Your task to perform on an android device: delete browsing data in the chrome app Image 0: 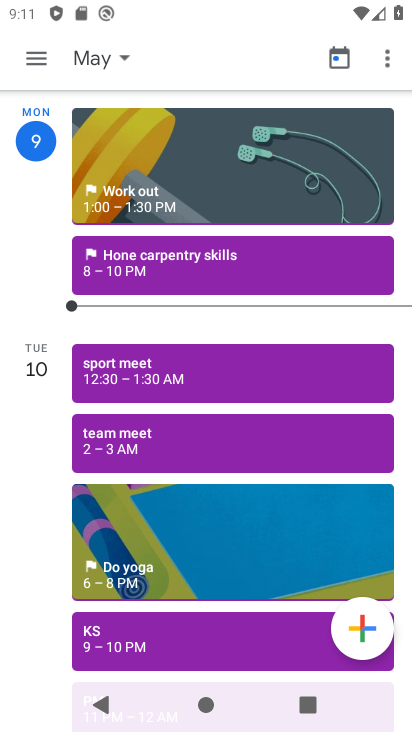
Step 0: press home button
Your task to perform on an android device: delete browsing data in the chrome app Image 1: 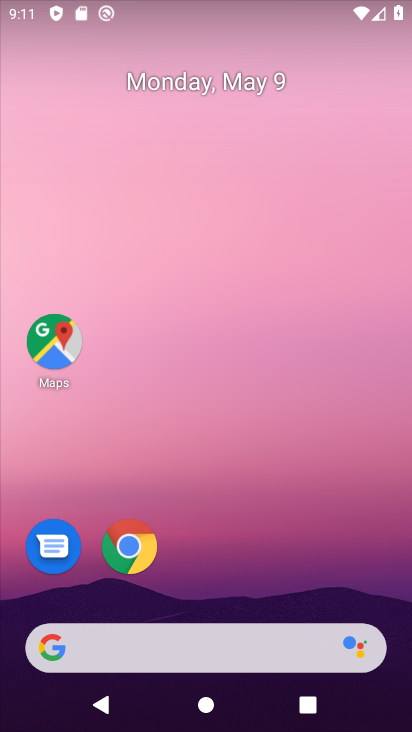
Step 1: click (142, 542)
Your task to perform on an android device: delete browsing data in the chrome app Image 2: 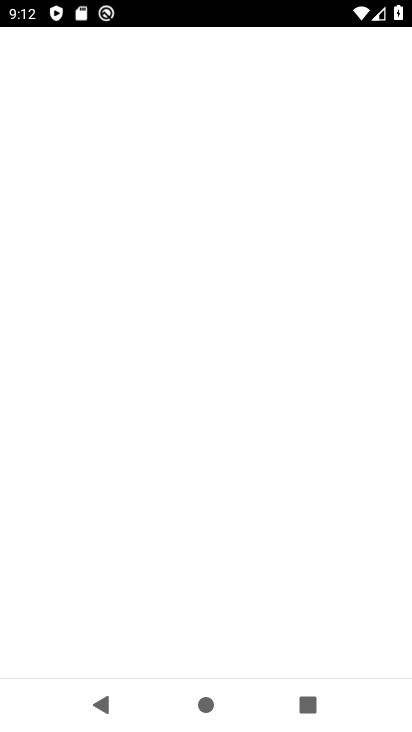
Step 2: click (222, 641)
Your task to perform on an android device: delete browsing data in the chrome app Image 3: 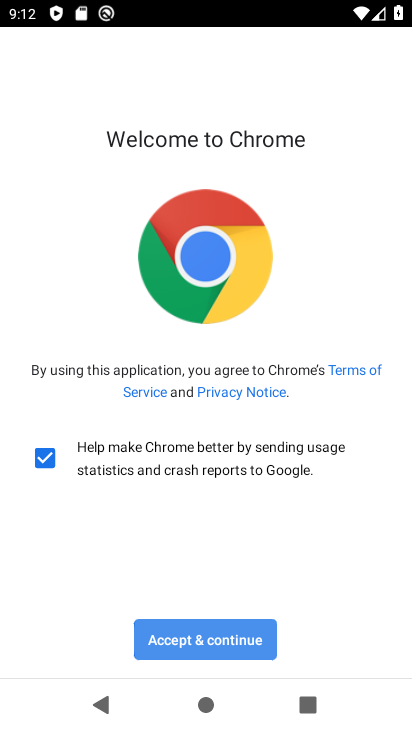
Step 3: click (222, 641)
Your task to perform on an android device: delete browsing data in the chrome app Image 4: 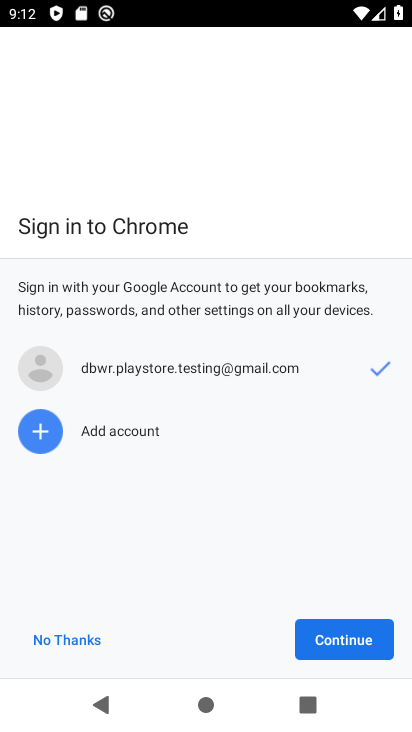
Step 4: click (362, 655)
Your task to perform on an android device: delete browsing data in the chrome app Image 5: 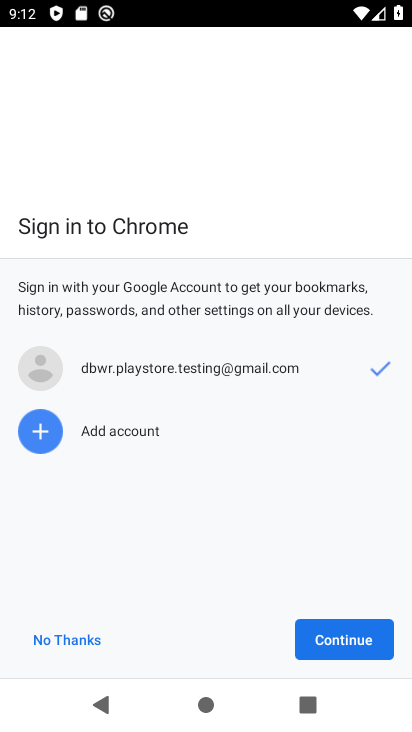
Step 5: click (362, 651)
Your task to perform on an android device: delete browsing data in the chrome app Image 6: 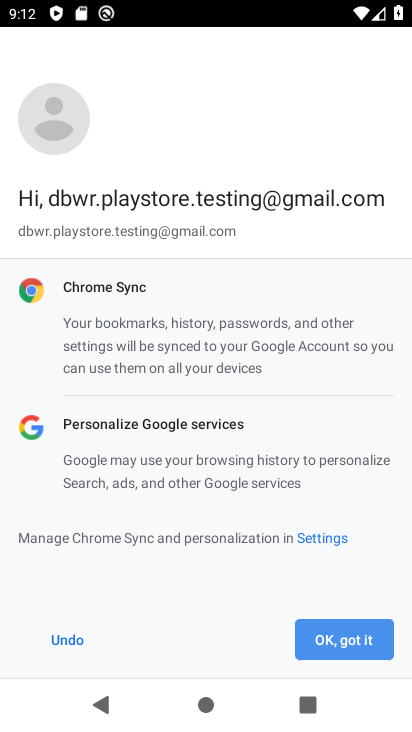
Step 6: click (360, 651)
Your task to perform on an android device: delete browsing data in the chrome app Image 7: 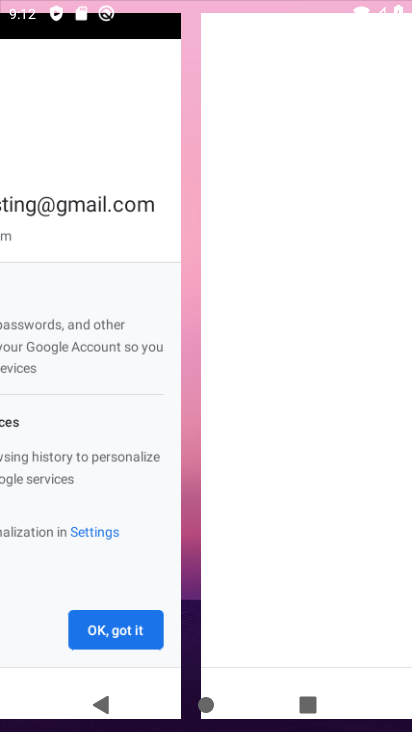
Step 7: click (360, 651)
Your task to perform on an android device: delete browsing data in the chrome app Image 8: 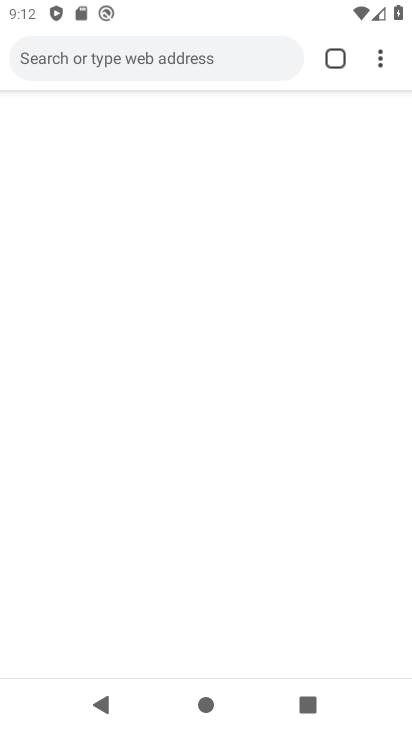
Step 8: click (354, 637)
Your task to perform on an android device: delete browsing data in the chrome app Image 9: 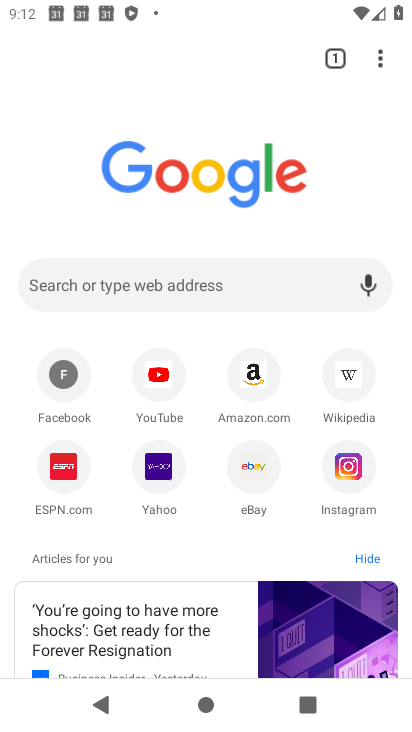
Step 9: drag from (373, 61) to (195, 482)
Your task to perform on an android device: delete browsing data in the chrome app Image 10: 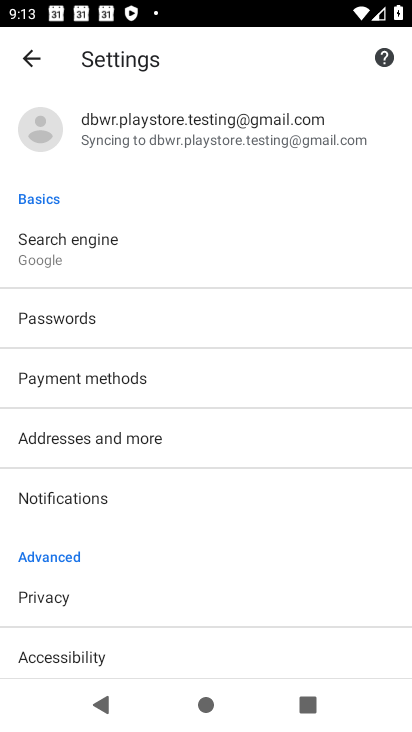
Step 10: click (49, 596)
Your task to perform on an android device: delete browsing data in the chrome app Image 11: 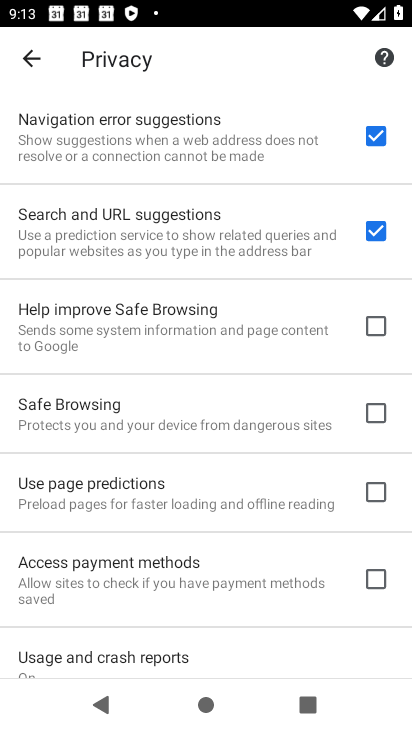
Step 11: drag from (128, 421) to (119, 159)
Your task to perform on an android device: delete browsing data in the chrome app Image 12: 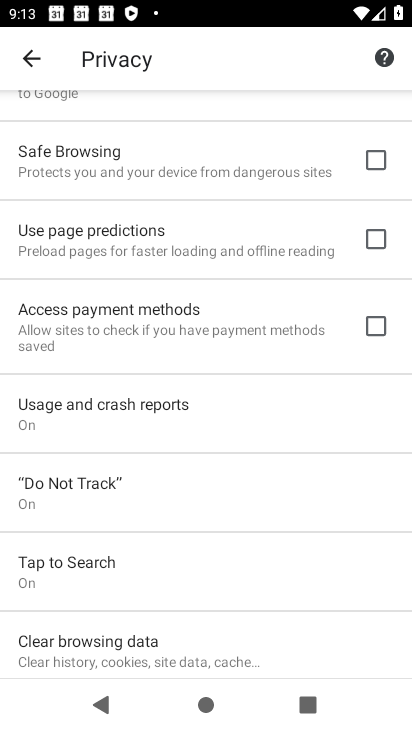
Step 12: drag from (130, 530) to (134, 210)
Your task to perform on an android device: delete browsing data in the chrome app Image 13: 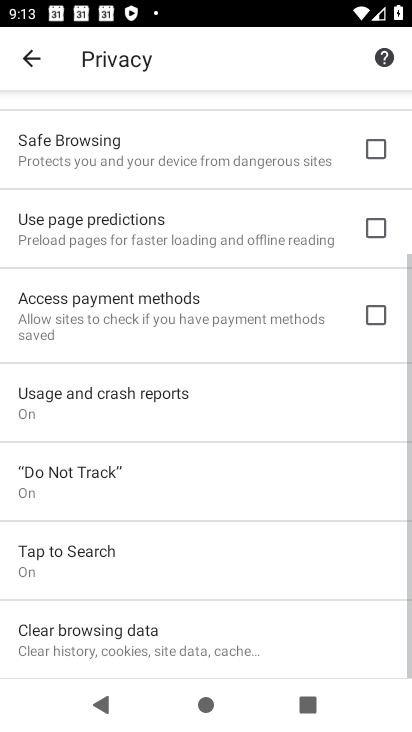
Step 13: drag from (127, 373) to (131, 275)
Your task to perform on an android device: delete browsing data in the chrome app Image 14: 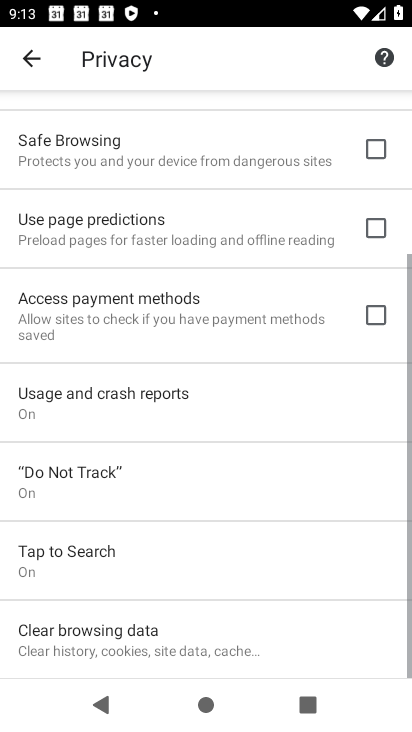
Step 14: click (146, 659)
Your task to perform on an android device: delete browsing data in the chrome app Image 15: 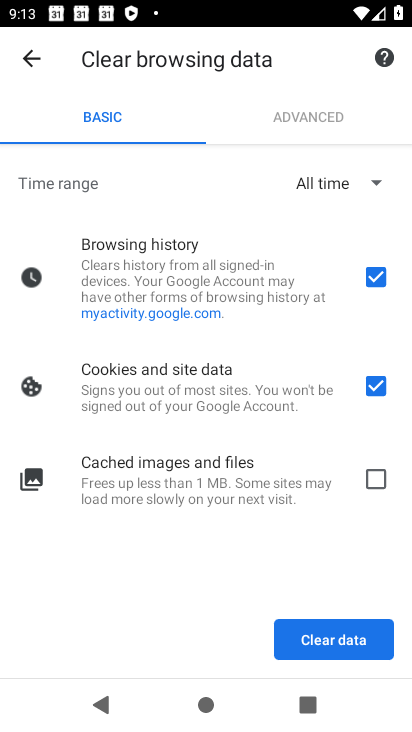
Step 15: click (368, 654)
Your task to perform on an android device: delete browsing data in the chrome app Image 16: 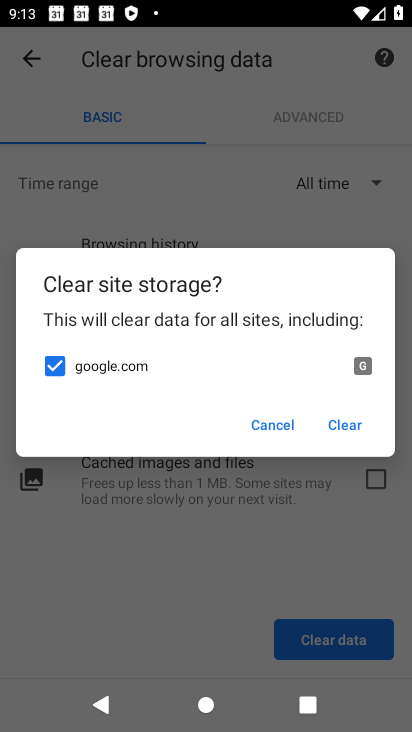
Step 16: click (337, 428)
Your task to perform on an android device: delete browsing data in the chrome app Image 17: 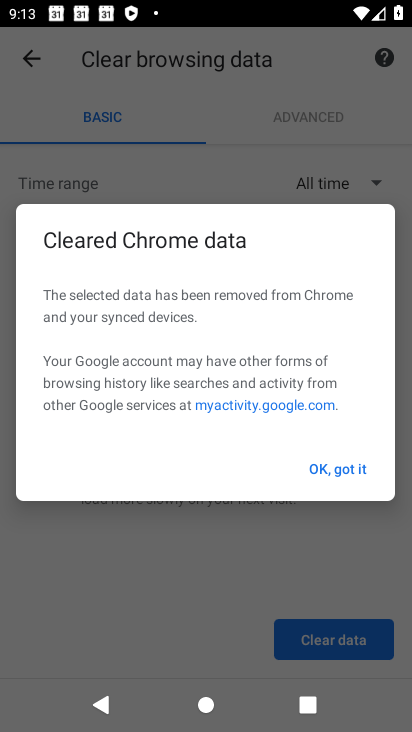
Step 17: click (345, 466)
Your task to perform on an android device: delete browsing data in the chrome app Image 18: 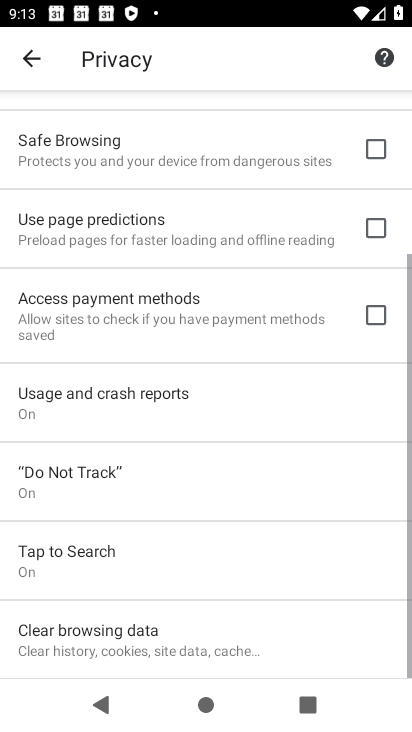
Step 18: task complete